Your task to perform on an android device: Open calendar and show me the first week of next month Image 0: 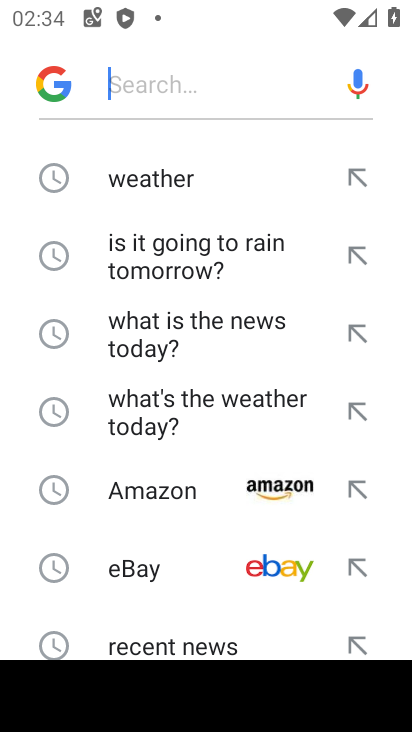
Step 0: press home button
Your task to perform on an android device: Open calendar and show me the first week of next month Image 1: 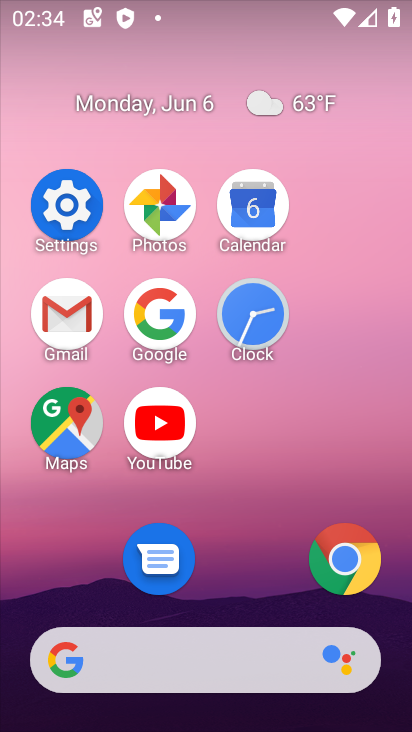
Step 1: click (268, 188)
Your task to perform on an android device: Open calendar and show me the first week of next month Image 2: 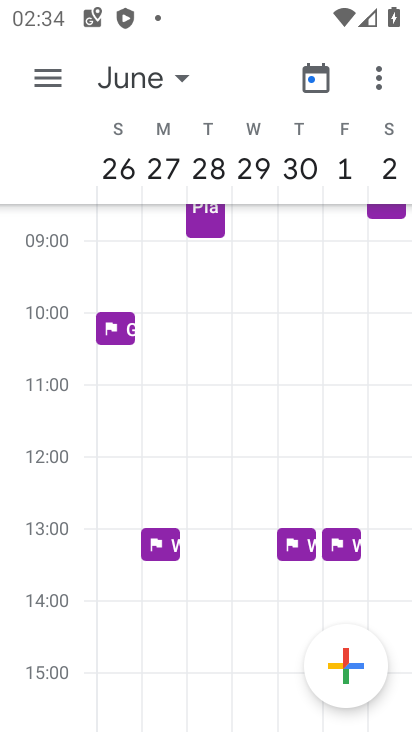
Step 2: click (169, 75)
Your task to perform on an android device: Open calendar and show me the first week of next month Image 3: 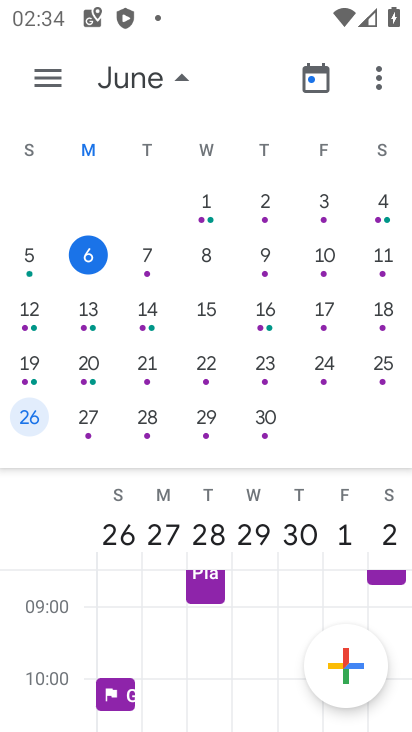
Step 3: drag from (392, 292) to (20, 318)
Your task to perform on an android device: Open calendar and show me the first week of next month Image 4: 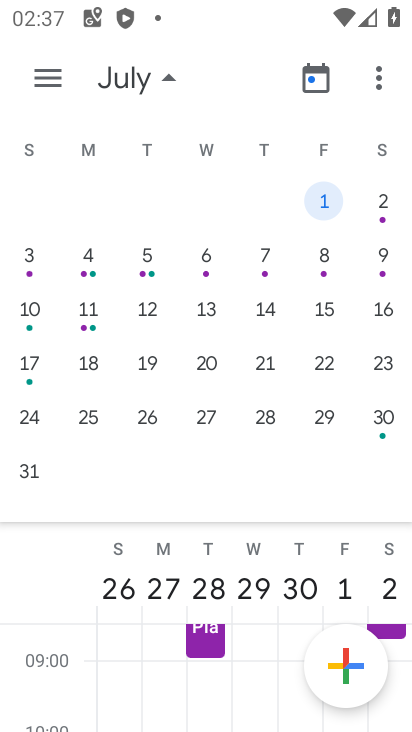
Step 4: click (39, 70)
Your task to perform on an android device: Open calendar and show me the first week of next month Image 5: 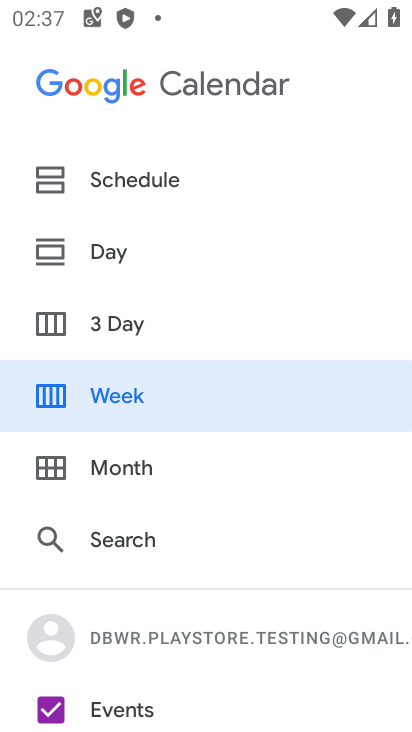
Step 5: click (122, 389)
Your task to perform on an android device: Open calendar and show me the first week of next month Image 6: 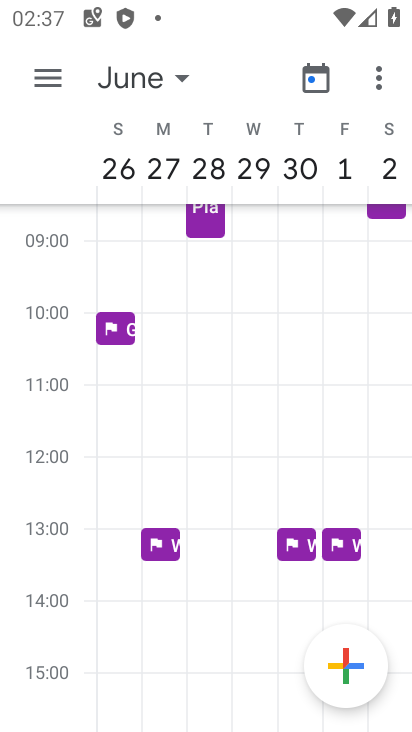
Step 6: task complete